Your task to perform on an android device: choose inbox layout in the gmail app Image 0: 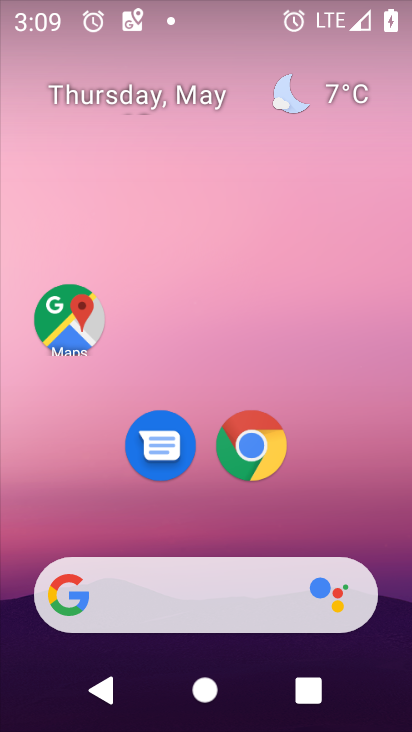
Step 0: drag from (374, 539) to (345, 9)
Your task to perform on an android device: choose inbox layout in the gmail app Image 1: 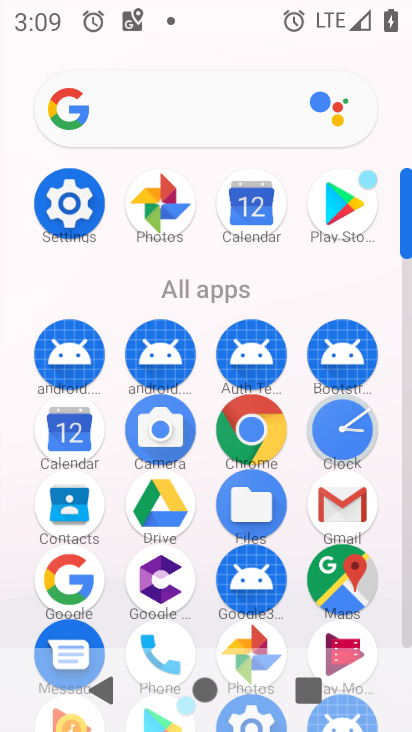
Step 1: click (347, 514)
Your task to perform on an android device: choose inbox layout in the gmail app Image 2: 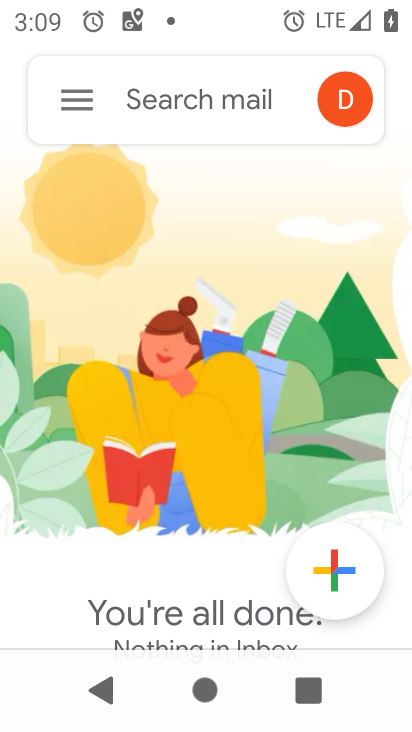
Step 2: click (69, 102)
Your task to perform on an android device: choose inbox layout in the gmail app Image 3: 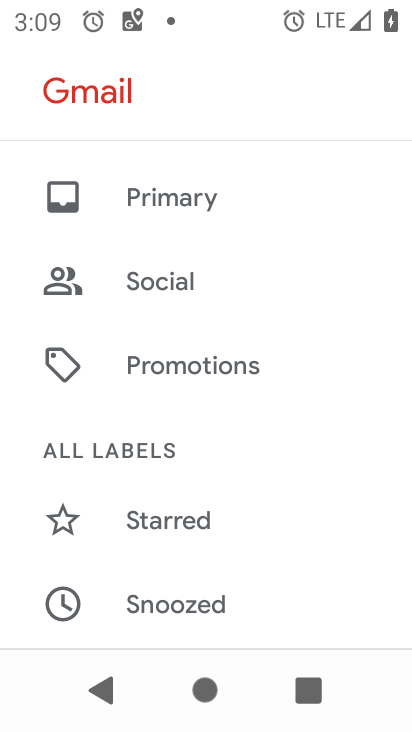
Step 3: drag from (239, 557) to (255, 132)
Your task to perform on an android device: choose inbox layout in the gmail app Image 4: 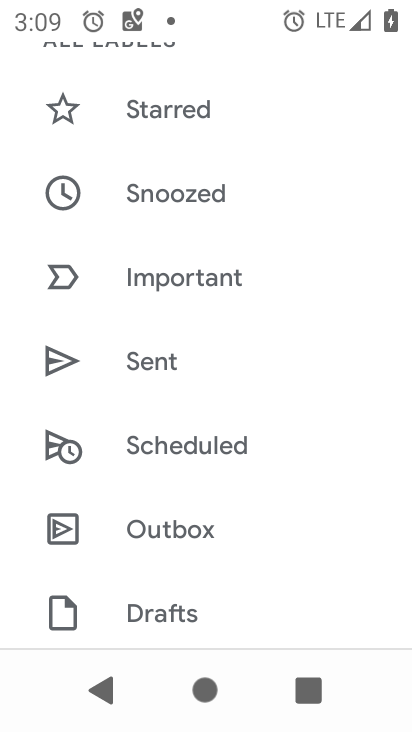
Step 4: drag from (235, 587) to (220, 133)
Your task to perform on an android device: choose inbox layout in the gmail app Image 5: 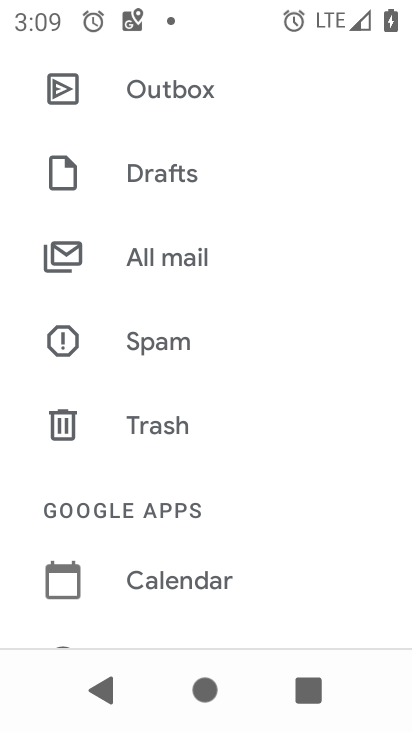
Step 5: drag from (238, 585) to (224, 213)
Your task to perform on an android device: choose inbox layout in the gmail app Image 6: 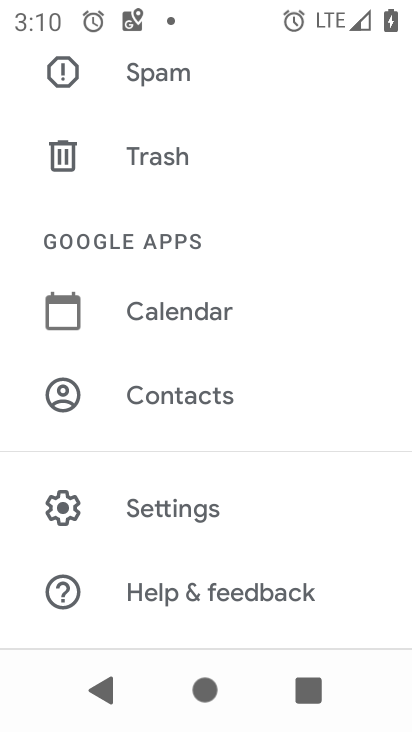
Step 6: click (160, 503)
Your task to perform on an android device: choose inbox layout in the gmail app Image 7: 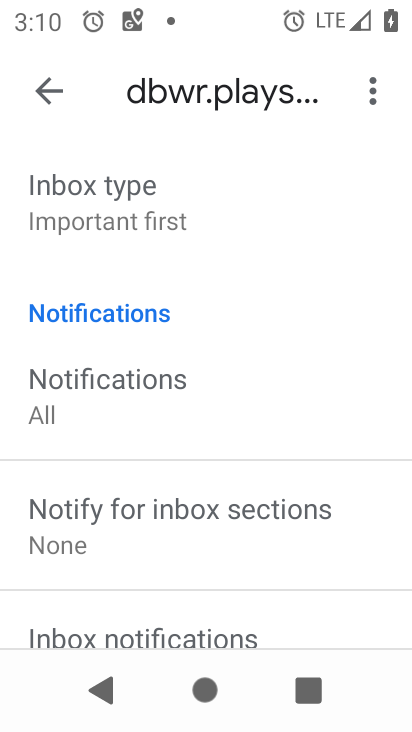
Step 7: drag from (226, 327) to (219, 475)
Your task to perform on an android device: choose inbox layout in the gmail app Image 8: 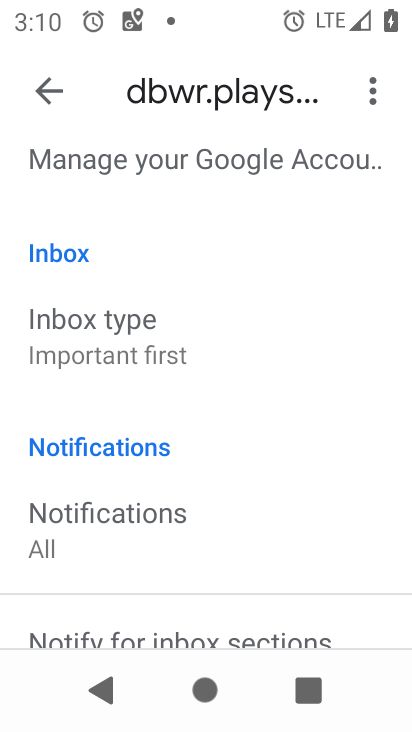
Step 8: click (116, 350)
Your task to perform on an android device: choose inbox layout in the gmail app Image 9: 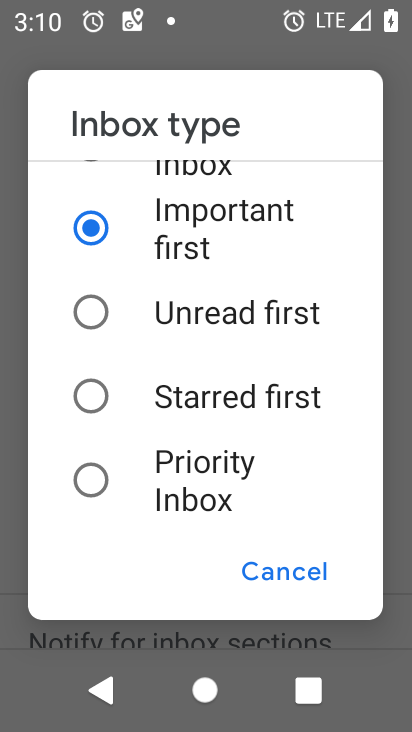
Step 9: click (100, 387)
Your task to perform on an android device: choose inbox layout in the gmail app Image 10: 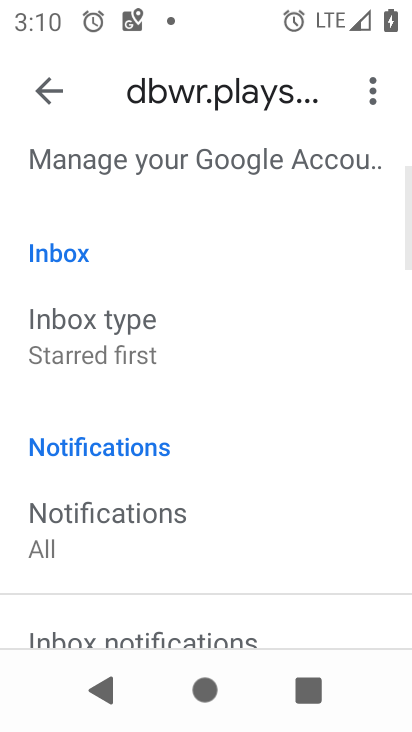
Step 10: task complete